Your task to perform on an android device: Open maps Image 0: 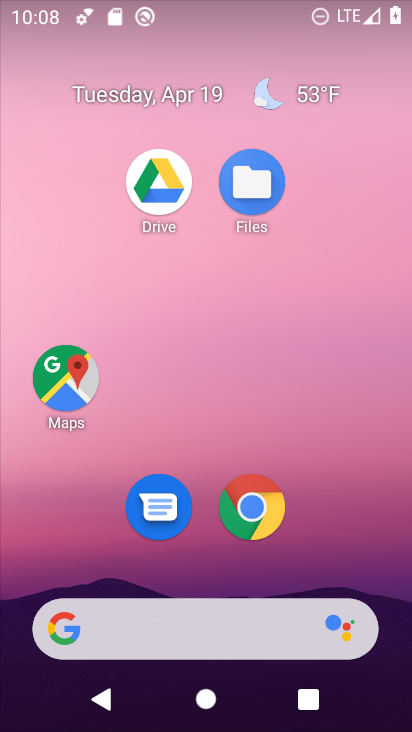
Step 0: click (71, 401)
Your task to perform on an android device: Open maps Image 1: 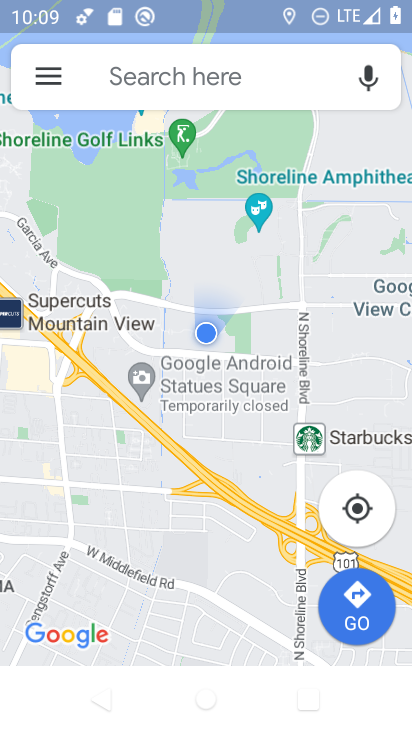
Step 1: task complete